Your task to perform on an android device: Go to display settings Image 0: 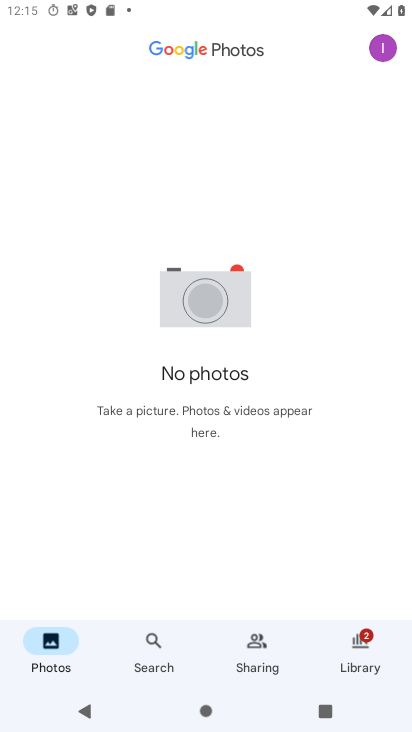
Step 0: press home button
Your task to perform on an android device: Go to display settings Image 1: 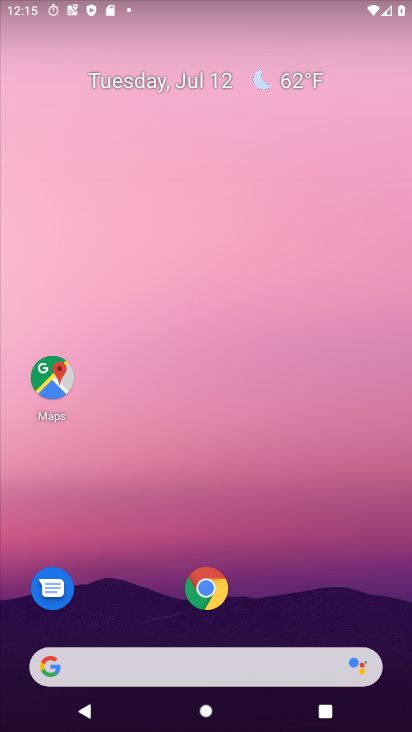
Step 1: drag from (185, 573) to (210, 218)
Your task to perform on an android device: Go to display settings Image 2: 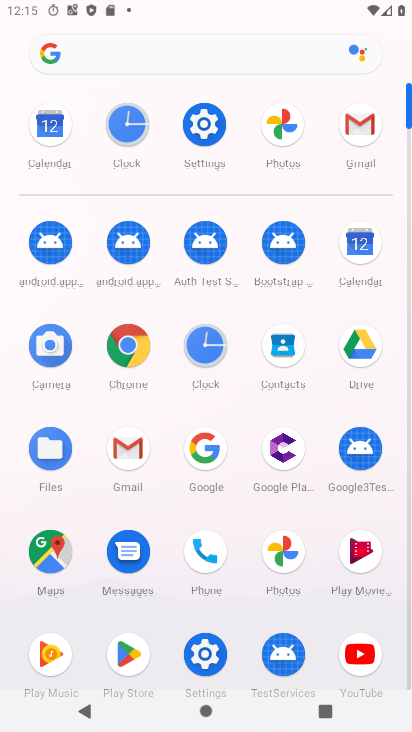
Step 2: click (210, 167)
Your task to perform on an android device: Go to display settings Image 3: 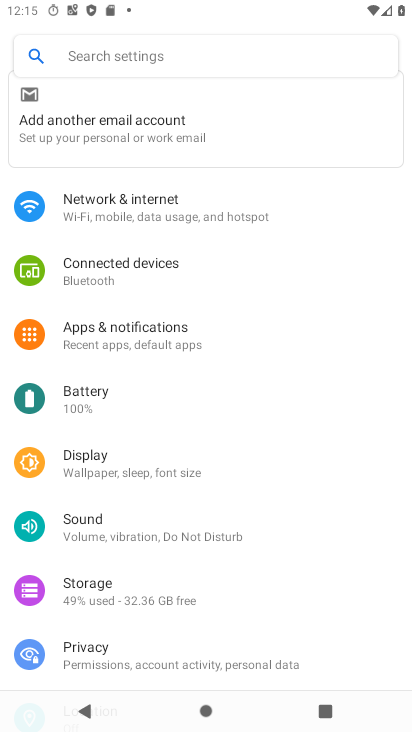
Step 3: click (93, 462)
Your task to perform on an android device: Go to display settings Image 4: 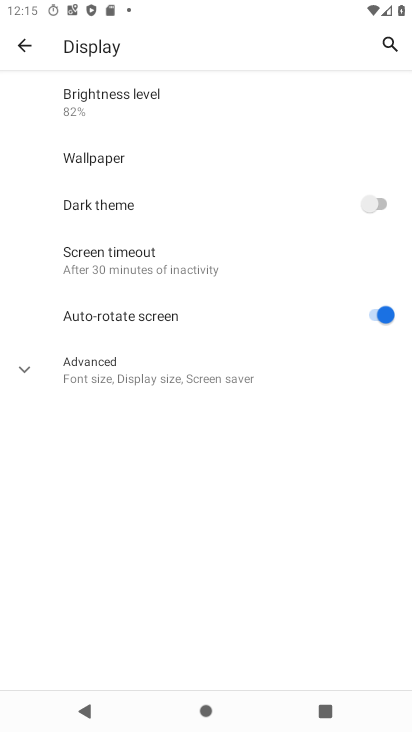
Step 4: task complete